Your task to perform on an android device: open chrome privacy settings Image 0: 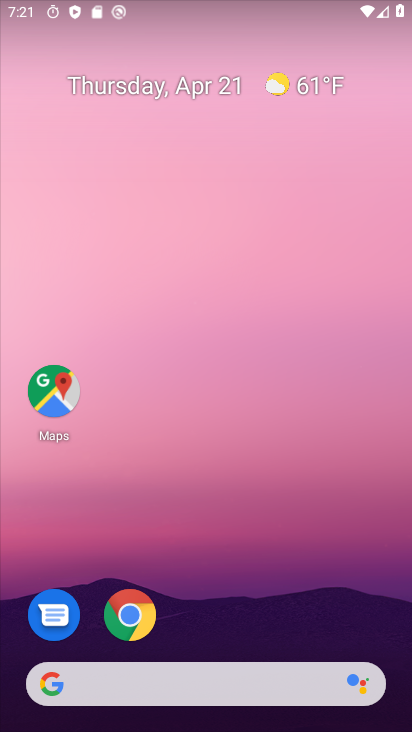
Step 0: click (133, 607)
Your task to perform on an android device: open chrome privacy settings Image 1: 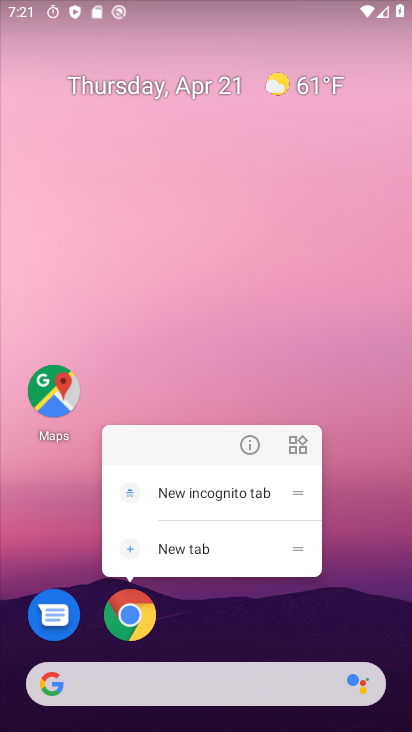
Step 1: click (260, 463)
Your task to perform on an android device: open chrome privacy settings Image 2: 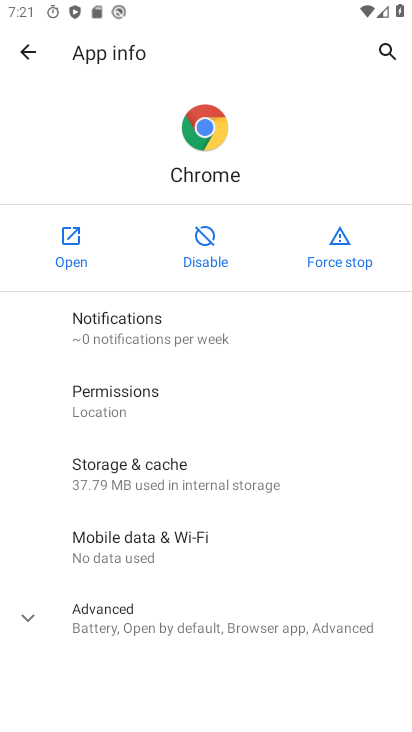
Step 2: click (75, 225)
Your task to perform on an android device: open chrome privacy settings Image 3: 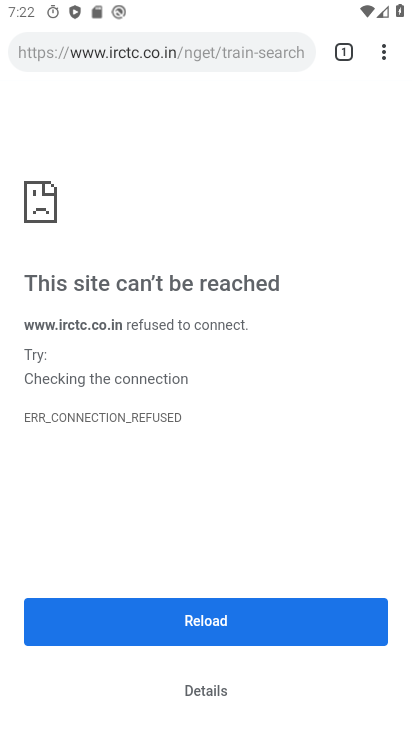
Step 3: drag from (385, 62) to (271, 637)
Your task to perform on an android device: open chrome privacy settings Image 4: 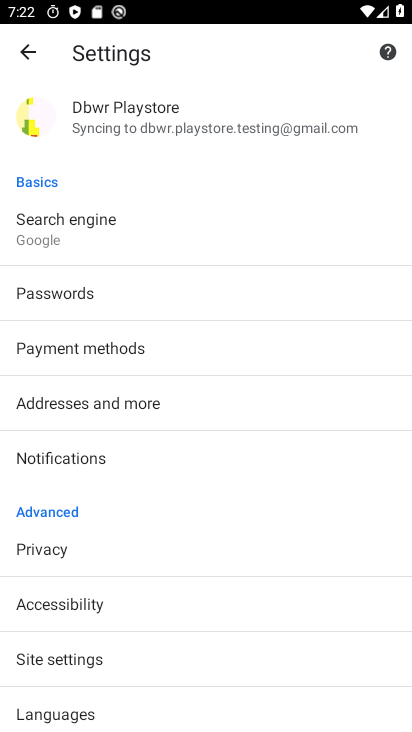
Step 4: drag from (149, 657) to (212, 312)
Your task to perform on an android device: open chrome privacy settings Image 5: 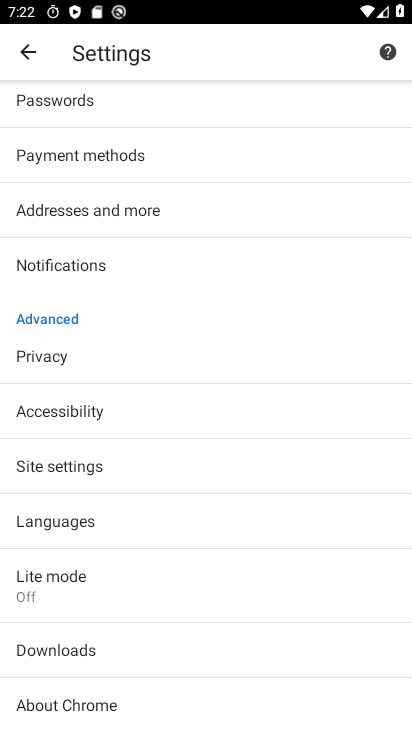
Step 5: click (138, 333)
Your task to perform on an android device: open chrome privacy settings Image 6: 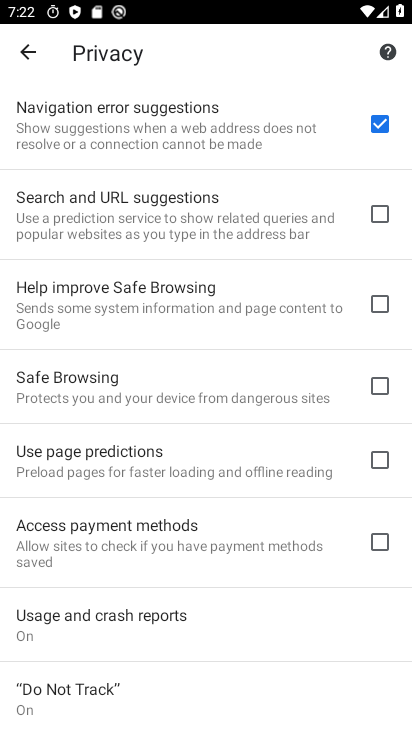
Step 6: task complete